Your task to perform on an android device: Go to Wikipedia Image 0: 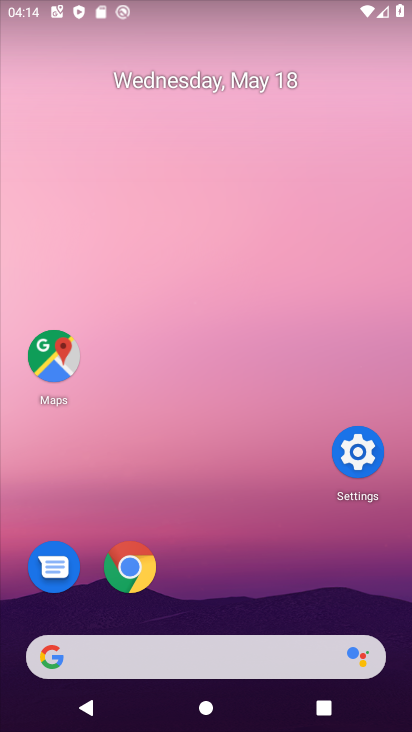
Step 0: click (128, 566)
Your task to perform on an android device: Go to Wikipedia Image 1: 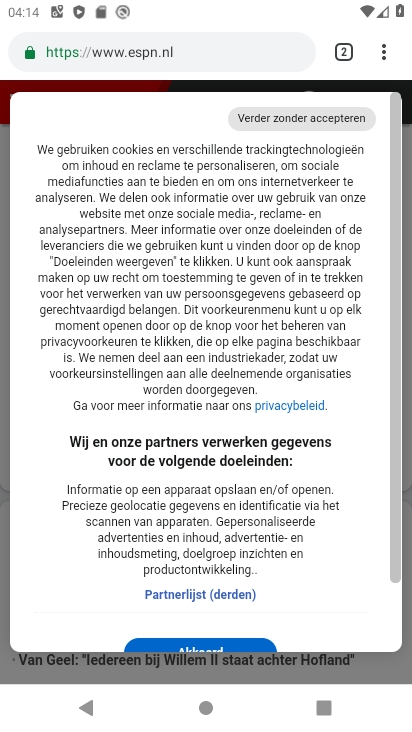
Step 1: click (376, 53)
Your task to perform on an android device: Go to Wikipedia Image 2: 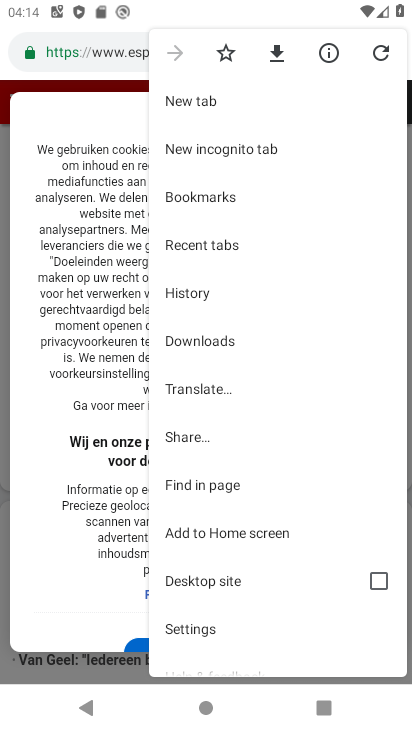
Step 2: click (189, 100)
Your task to perform on an android device: Go to Wikipedia Image 3: 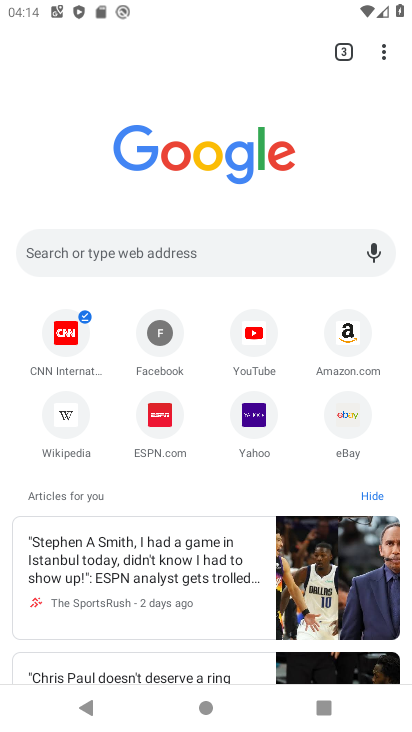
Step 3: click (62, 415)
Your task to perform on an android device: Go to Wikipedia Image 4: 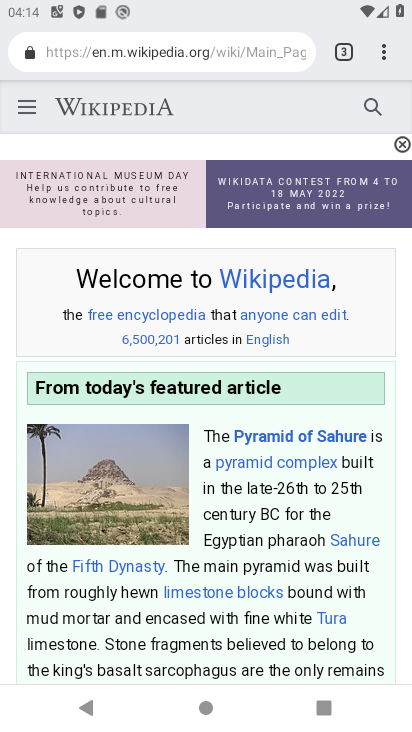
Step 4: task complete